Your task to perform on an android device: turn off improve location accuracy Image 0: 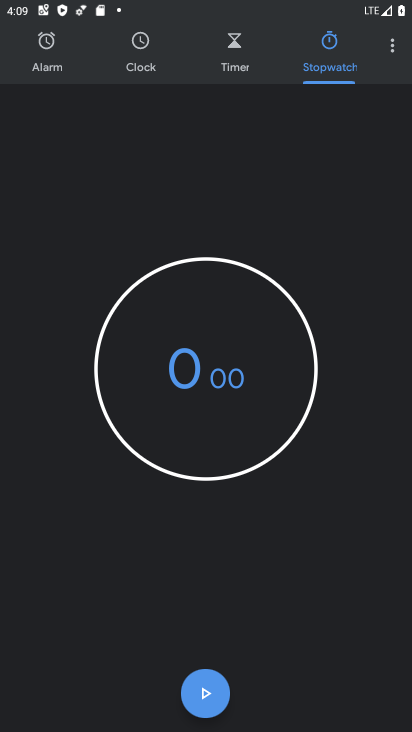
Step 0: press back button
Your task to perform on an android device: turn off improve location accuracy Image 1: 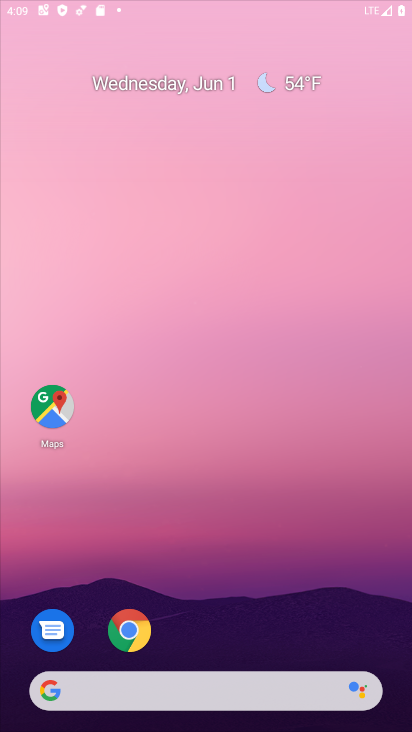
Step 1: press home button
Your task to perform on an android device: turn off improve location accuracy Image 2: 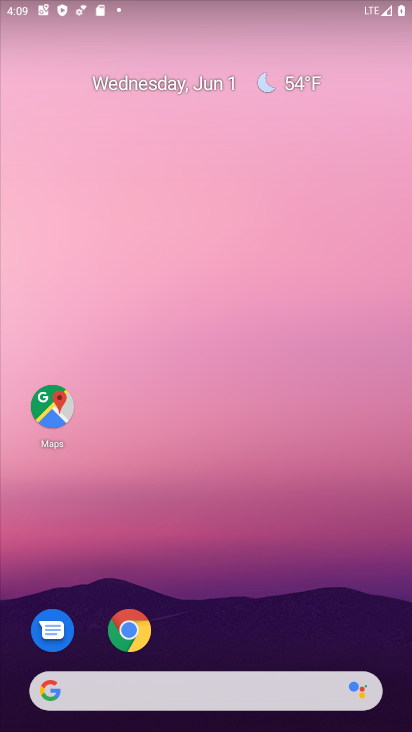
Step 2: drag from (262, 582) to (203, 3)
Your task to perform on an android device: turn off improve location accuracy Image 3: 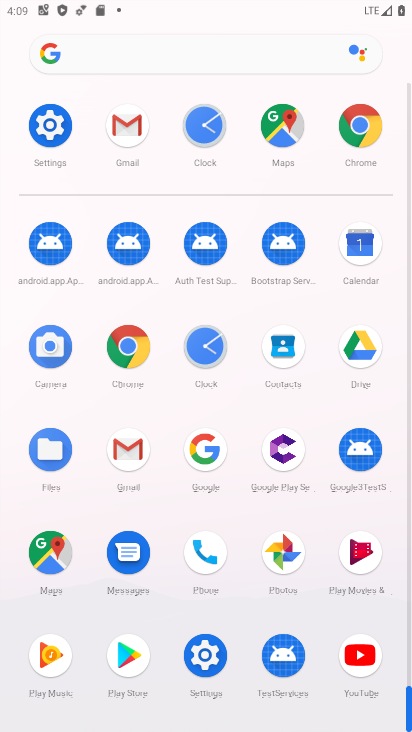
Step 3: drag from (19, 558) to (19, 111)
Your task to perform on an android device: turn off improve location accuracy Image 4: 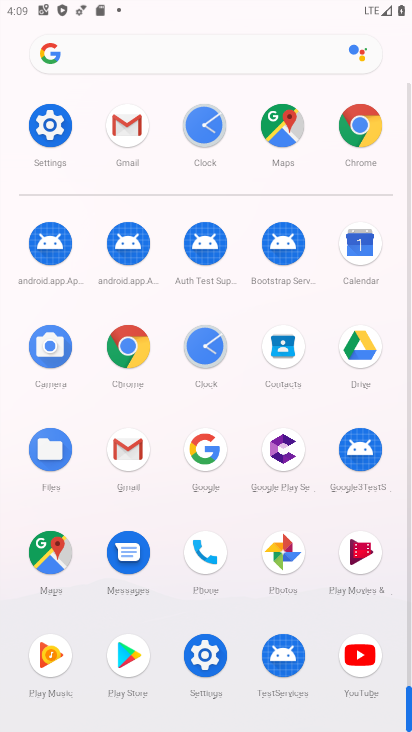
Step 4: click (203, 646)
Your task to perform on an android device: turn off improve location accuracy Image 5: 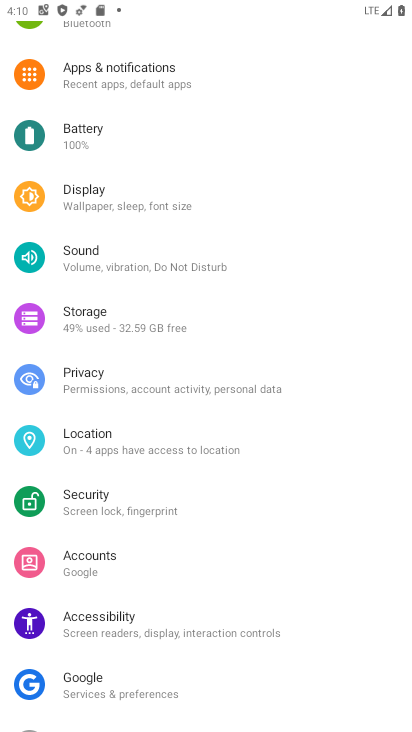
Step 5: drag from (225, 621) to (225, 213)
Your task to perform on an android device: turn off improve location accuracy Image 6: 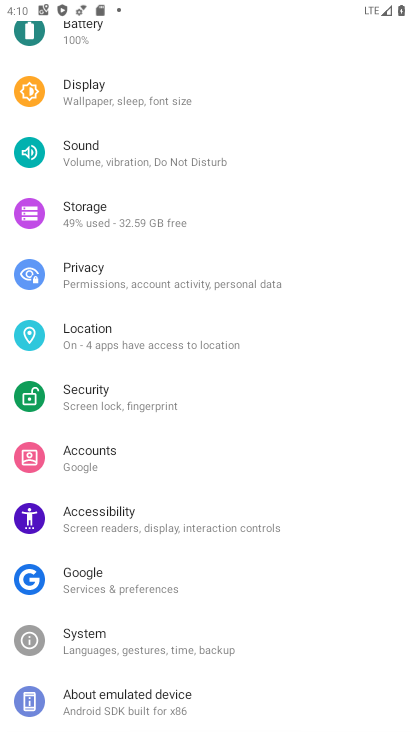
Step 6: click (134, 331)
Your task to perform on an android device: turn off improve location accuracy Image 7: 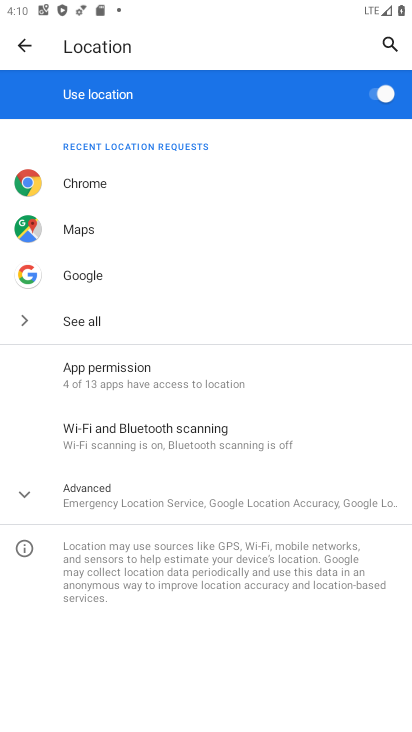
Step 7: click (30, 495)
Your task to perform on an android device: turn off improve location accuracy Image 8: 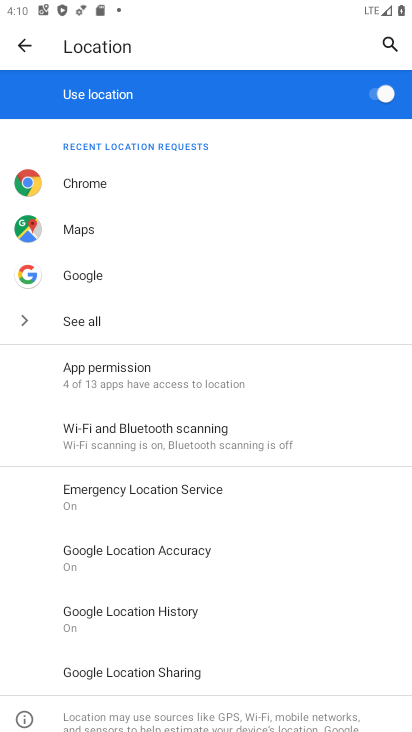
Step 8: click (195, 543)
Your task to perform on an android device: turn off improve location accuracy Image 9: 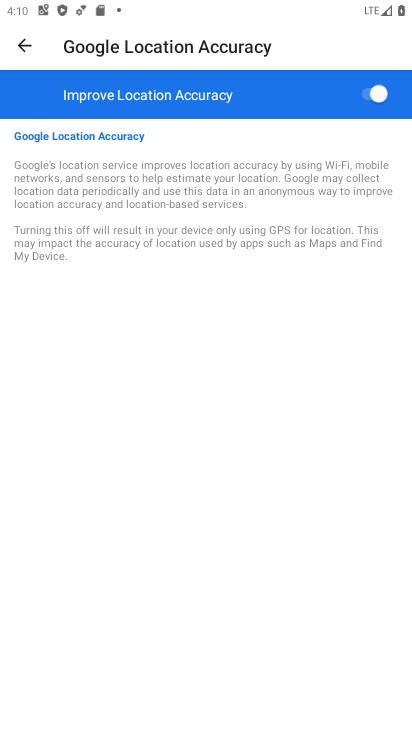
Step 9: click (371, 94)
Your task to perform on an android device: turn off improve location accuracy Image 10: 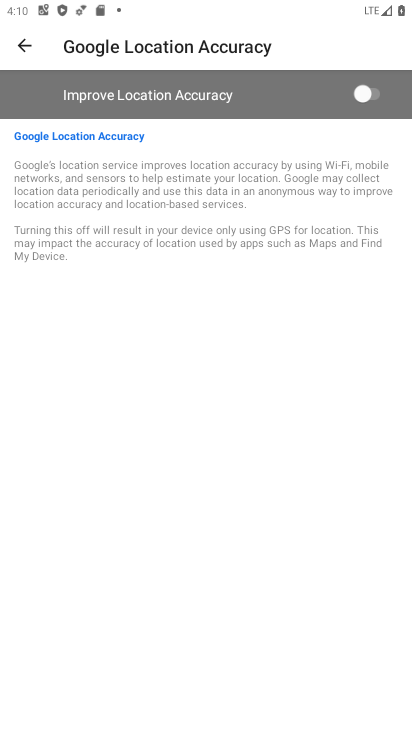
Step 10: task complete